Your task to perform on an android device: visit the assistant section in the google photos Image 0: 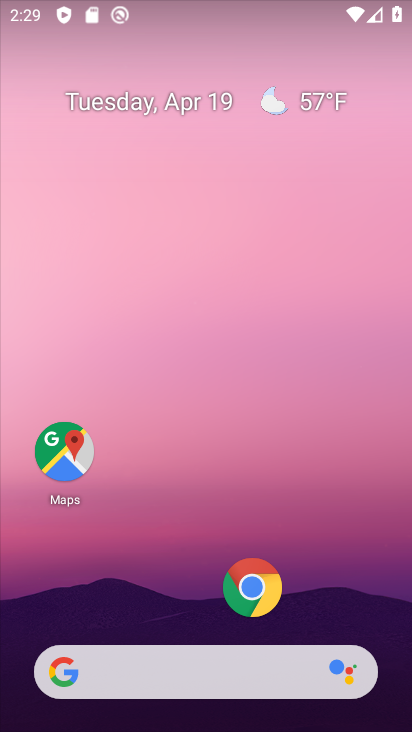
Step 0: drag from (172, 577) to (244, 112)
Your task to perform on an android device: visit the assistant section in the google photos Image 1: 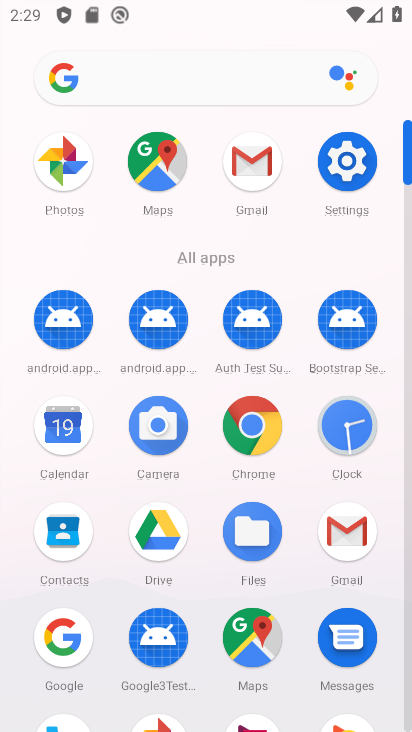
Step 1: drag from (207, 538) to (261, 66)
Your task to perform on an android device: visit the assistant section in the google photos Image 2: 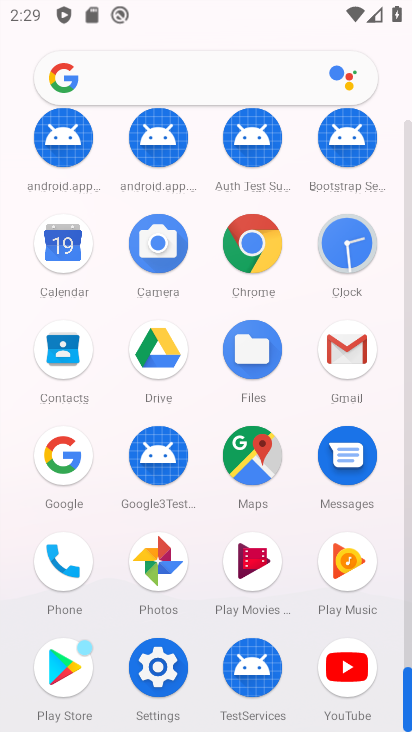
Step 2: click (168, 565)
Your task to perform on an android device: visit the assistant section in the google photos Image 3: 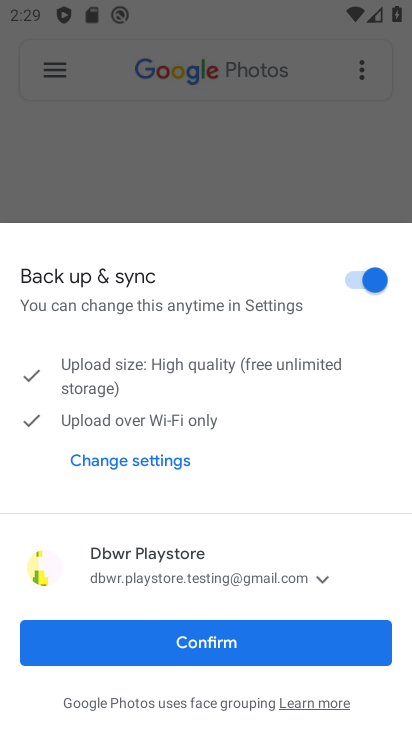
Step 3: click (224, 647)
Your task to perform on an android device: visit the assistant section in the google photos Image 4: 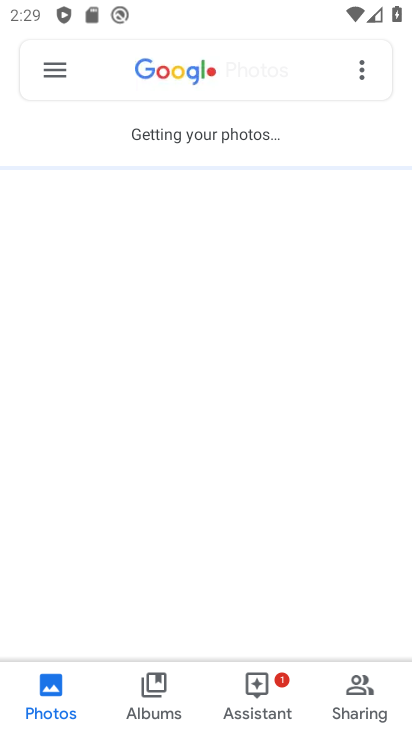
Step 4: click (259, 690)
Your task to perform on an android device: visit the assistant section in the google photos Image 5: 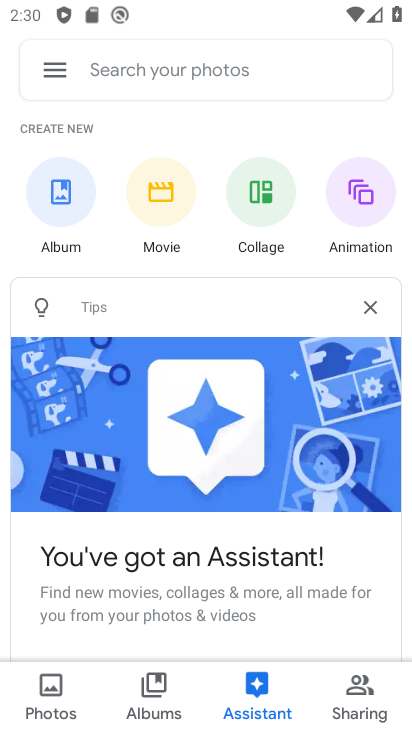
Step 5: task complete